Your task to perform on an android device: Go to battery settings Image 0: 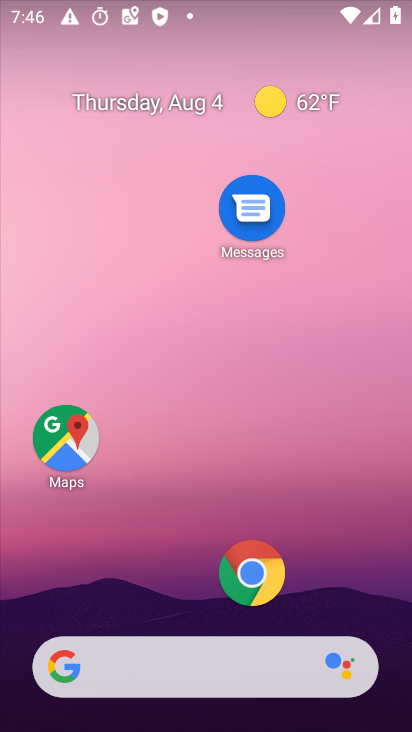
Step 0: press home button
Your task to perform on an android device: Go to battery settings Image 1: 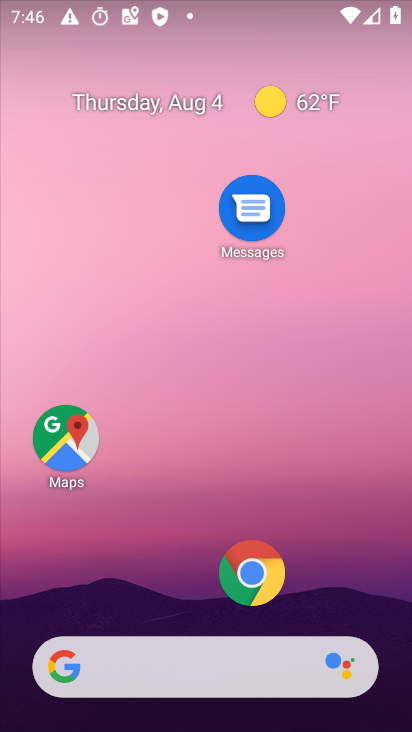
Step 1: drag from (176, 617) to (204, 189)
Your task to perform on an android device: Go to battery settings Image 2: 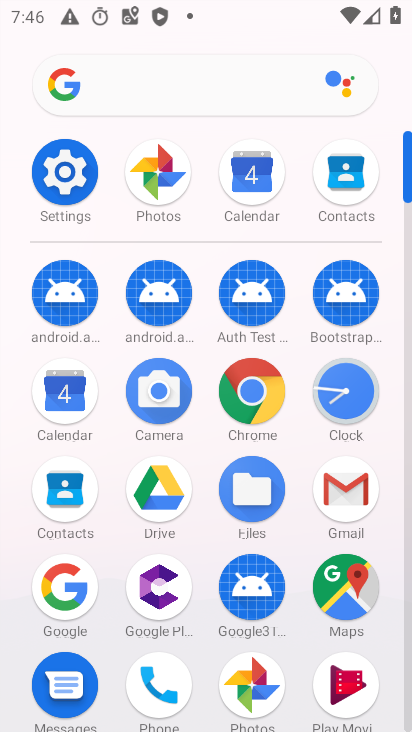
Step 2: click (75, 192)
Your task to perform on an android device: Go to battery settings Image 3: 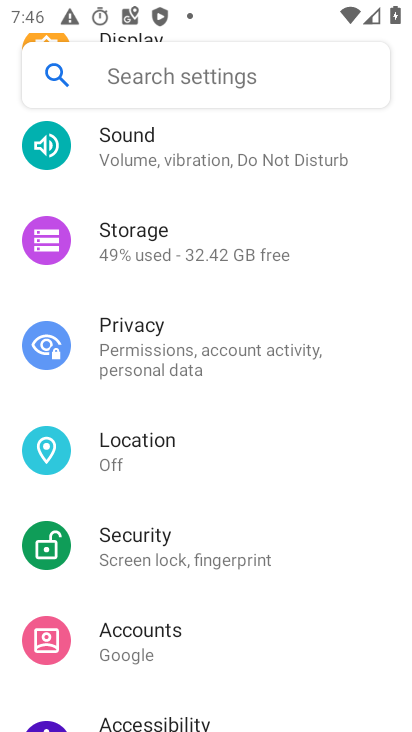
Step 3: drag from (269, 229) to (251, 657)
Your task to perform on an android device: Go to battery settings Image 4: 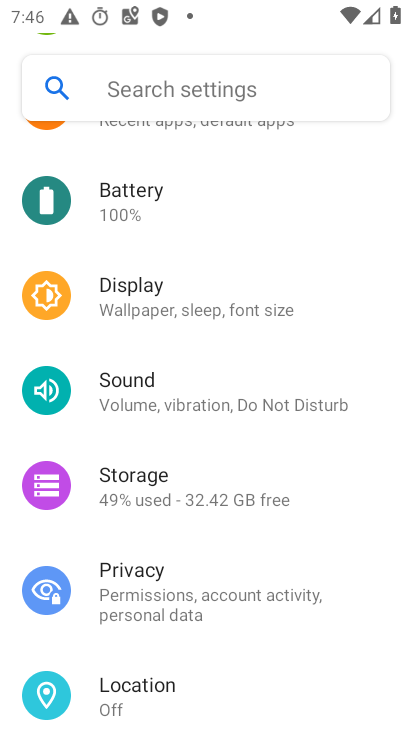
Step 4: click (137, 208)
Your task to perform on an android device: Go to battery settings Image 5: 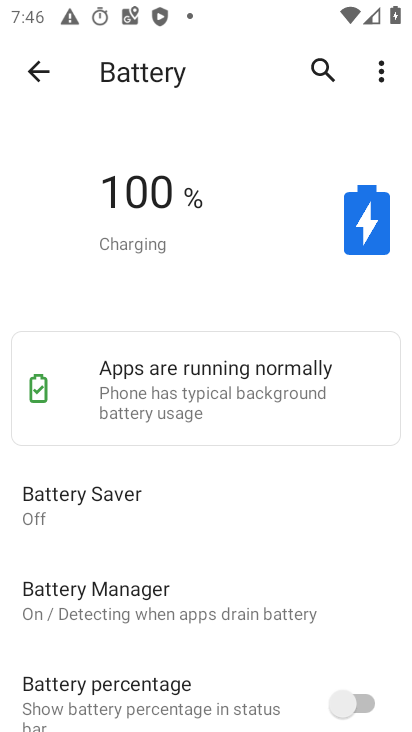
Step 5: task complete